Your task to perform on an android device: Open accessibility settings Image 0: 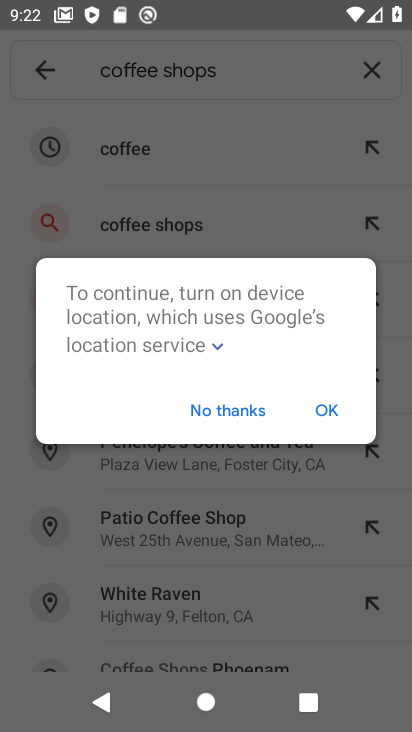
Step 0: press back button
Your task to perform on an android device: Open accessibility settings Image 1: 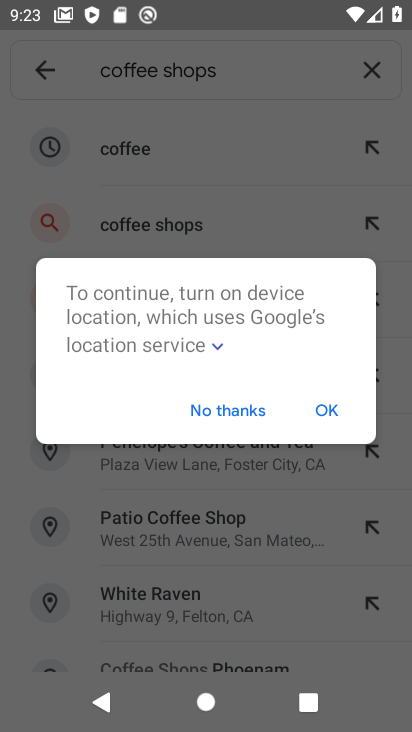
Step 1: press back button
Your task to perform on an android device: Open accessibility settings Image 2: 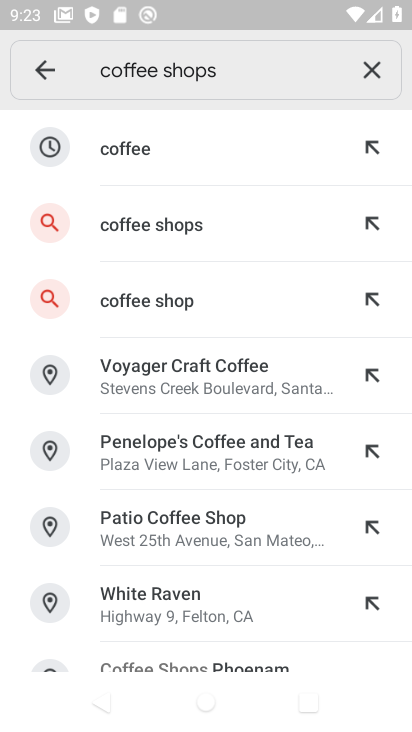
Step 2: press home button
Your task to perform on an android device: Open accessibility settings Image 3: 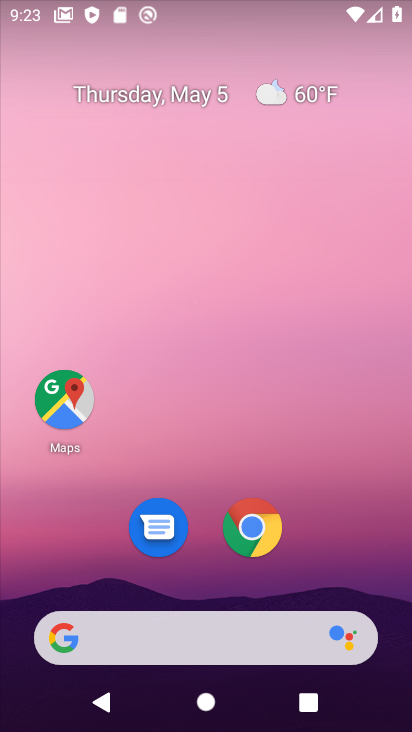
Step 3: drag from (274, 592) to (295, 180)
Your task to perform on an android device: Open accessibility settings Image 4: 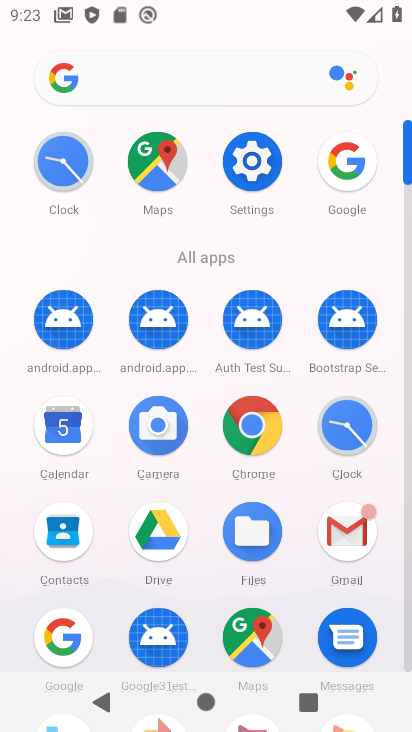
Step 4: click (273, 172)
Your task to perform on an android device: Open accessibility settings Image 5: 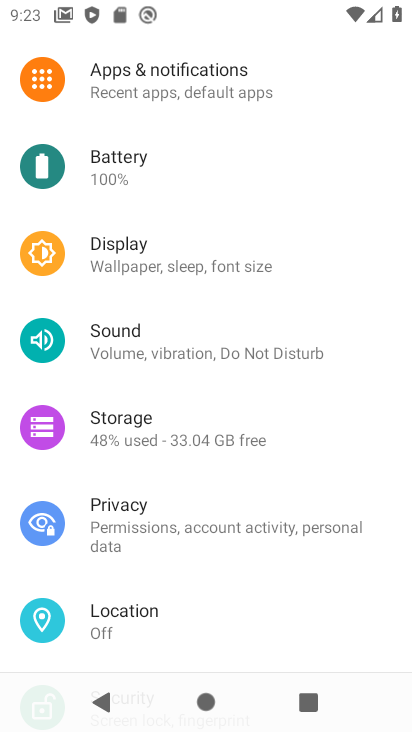
Step 5: drag from (269, 620) to (301, 197)
Your task to perform on an android device: Open accessibility settings Image 6: 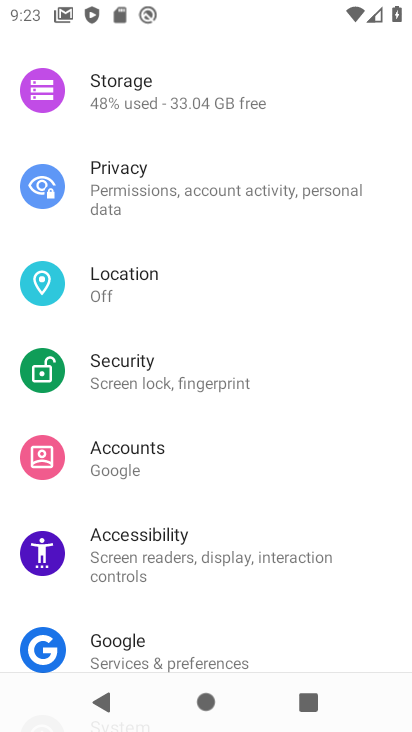
Step 6: click (238, 550)
Your task to perform on an android device: Open accessibility settings Image 7: 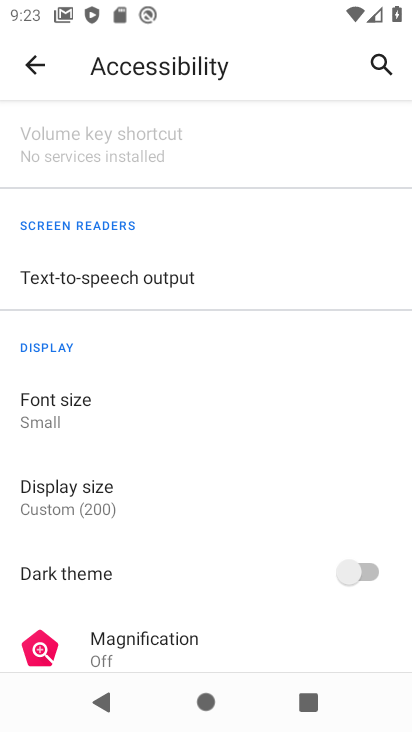
Step 7: task complete